Your task to perform on an android device: Go to CNN.com Image 0: 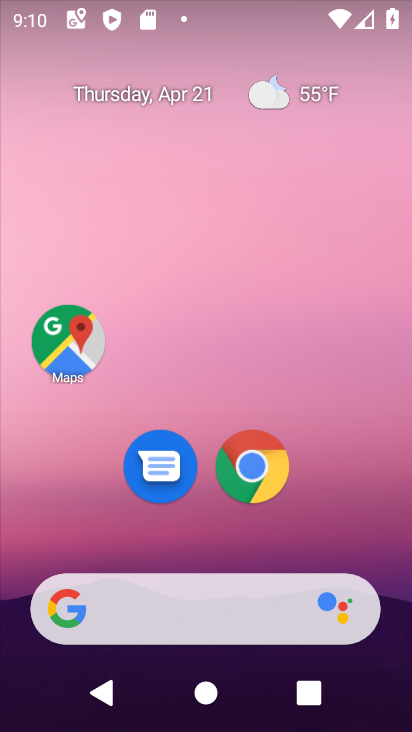
Step 0: drag from (313, 533) to (314, 80)
Your task to perform on an android device: Go to CNN.com Image 1: 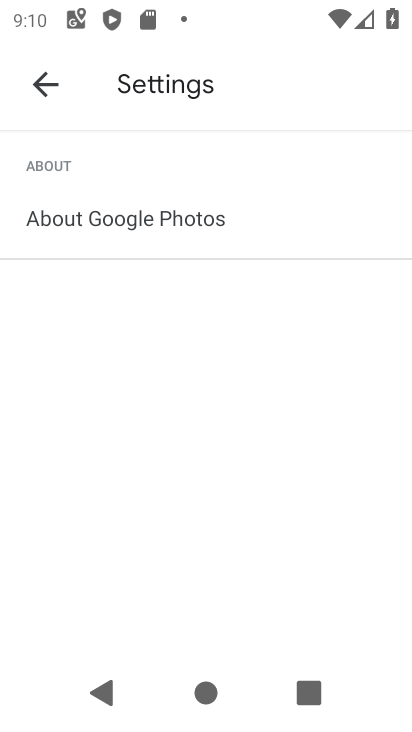
Step 1: press home button
Your task to perform on an android device: Go to CNN.com Image 2: 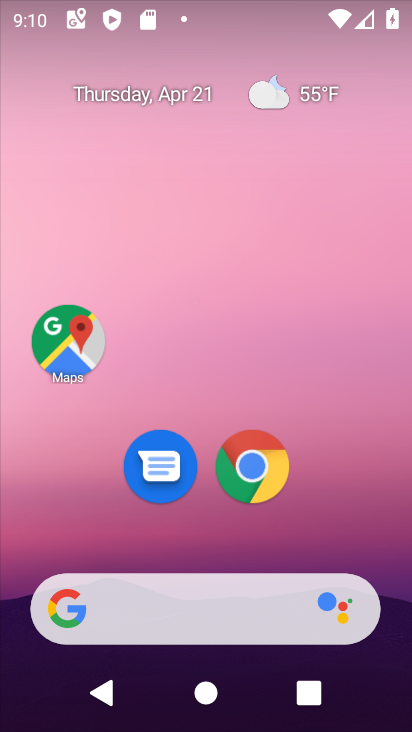
Step 2: click (255, 477)
Your task to perform on an android device: Go to CNN.com Image 3: 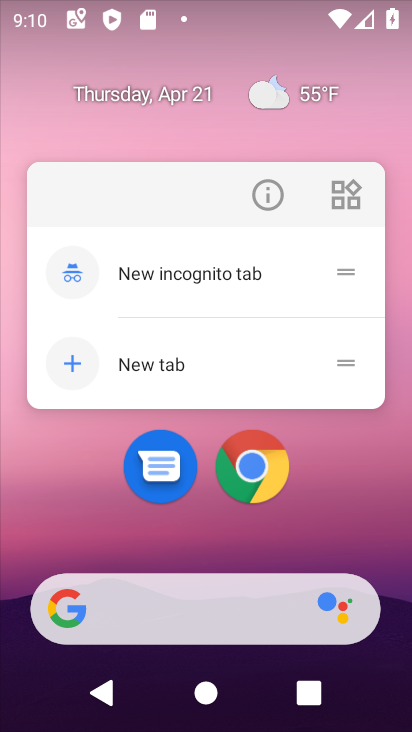
Step 3: click (262, 488)
Your task to perform on an android device: Go to CNN.com Image 4: 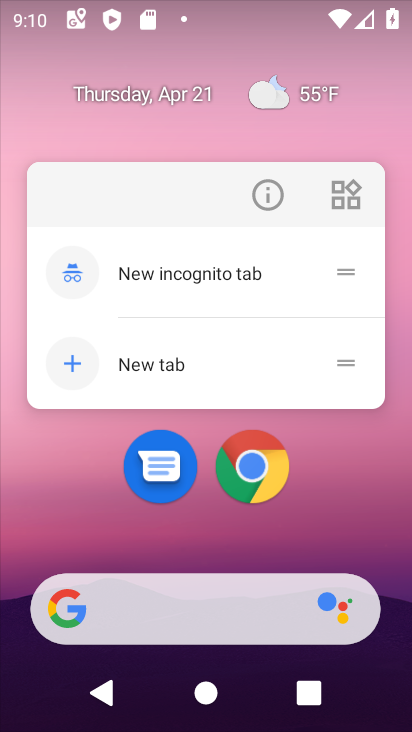
Step 4: click (265, 491)
Your task to perform on an android device: Go to CNN.com Image 5: 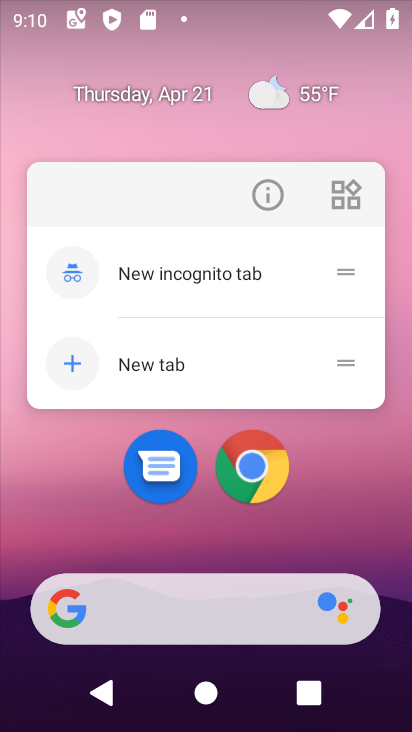
Step 5: click (260, 475)
Your task to perform on an android device: Go to CNN.com Image 6: 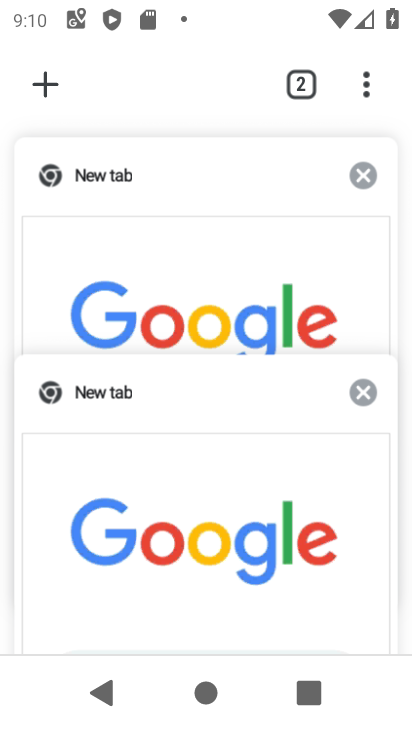
Step 6: click (129, 390)
Your task to perform on an android device: Go to CNN.com Image 7: 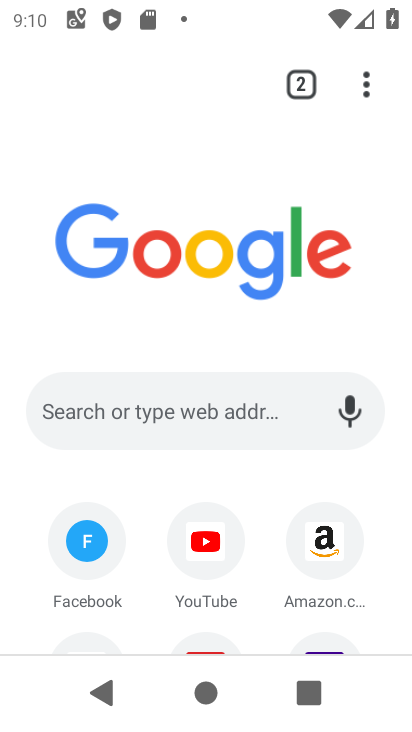
Step 7: click (117, 401)
Your task to perform on an android device: Go to CNN.com Image 8: 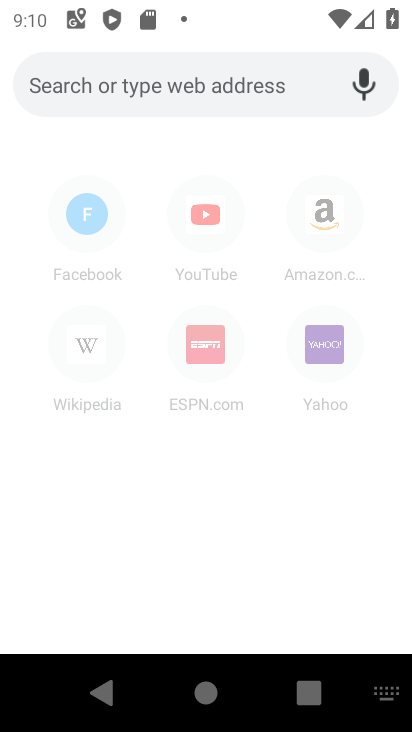
Step 8: type "CNN.com"
Your task to perform on an android device: Go to CNN.com Image 9: 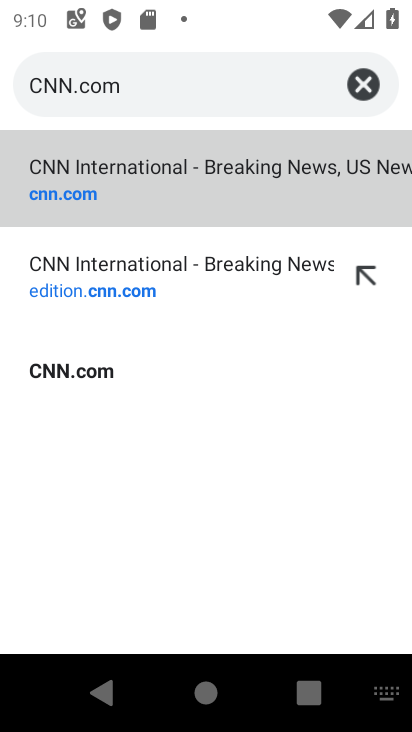
Step 9: click (64, 198)
Your task to perform on an android device: Go to CNN.com Image 10: 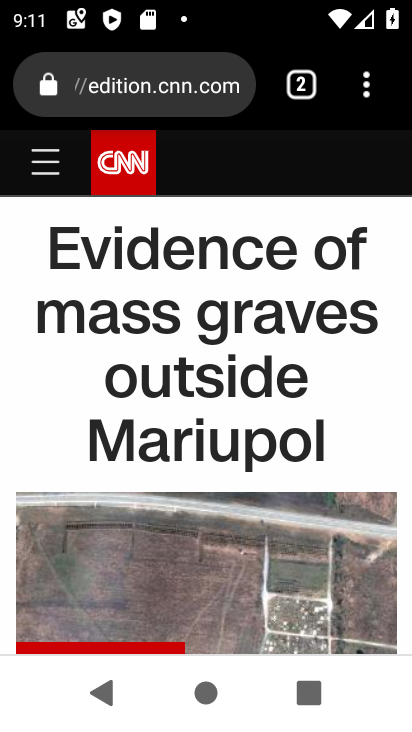
Step 10: task complete